Your task to perform on an android device: change the clock display to show seconds Image 0: 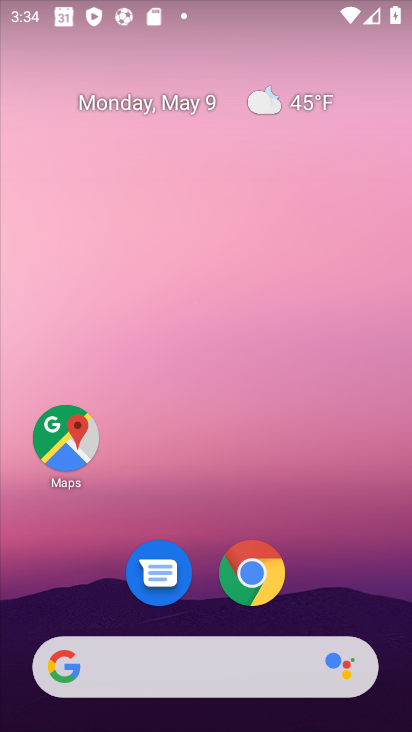
Step 0: drag from (376, 617) to (377, 7)
Your task to perform on an android device: change the clock display to show seconds Image 1: 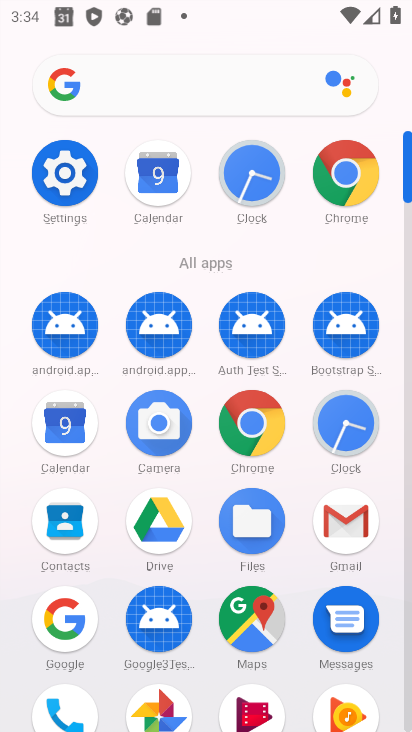
Step 1: click (248, 176)
Your task to perform on an android device: change the clock display to show seconds Image 2: 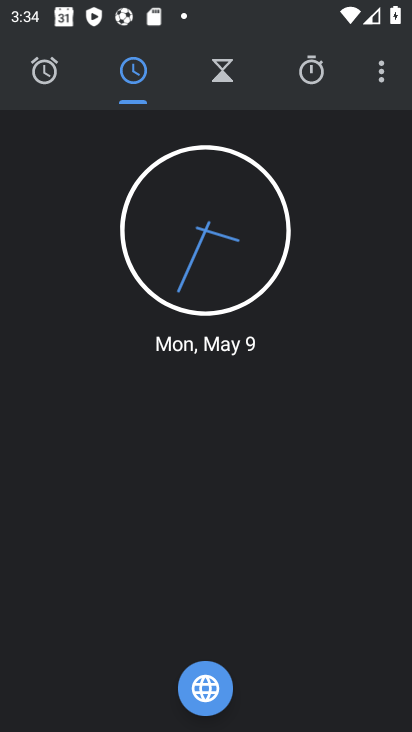
Step 2: click (384, 75)
Your task to perform on an android device: change the clock display to show seconds Image 3: 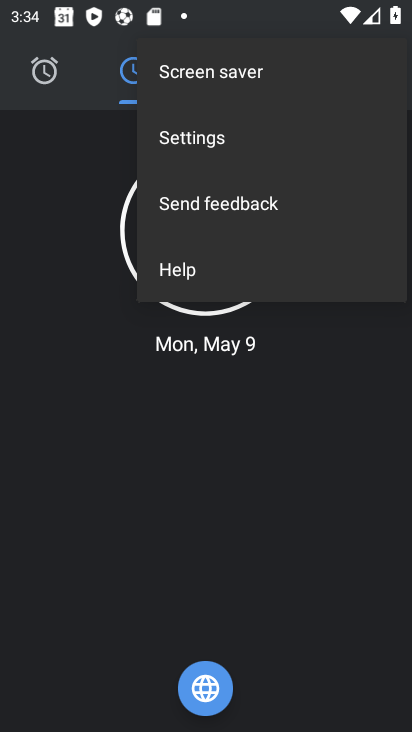
Step 3: click (201, 147)
Your task to perform on an android device: change the clock display to show seconds Image 4: 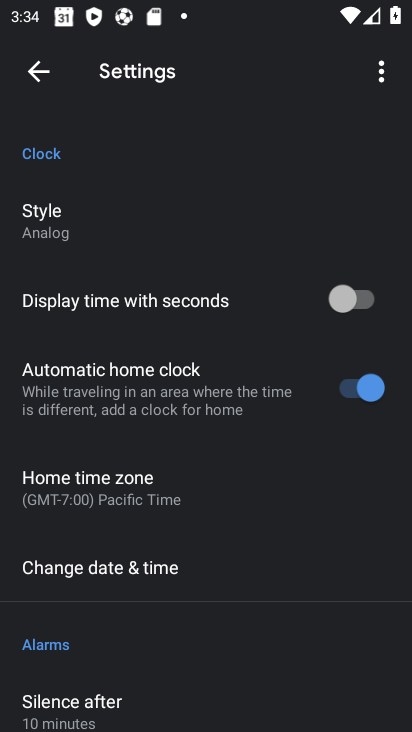
Step 4: click (338, 296)
Your task to perform on an android device: change the clock display to show seconds Image 5: 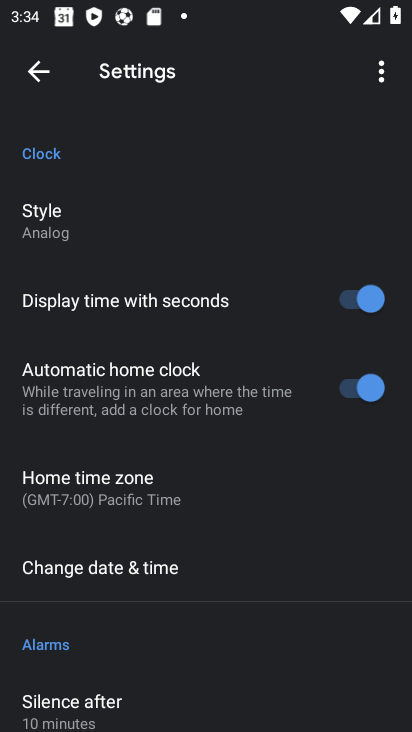
Step 5: task complete